Your task to perform on an android device: turn on airplane mode Image 0: 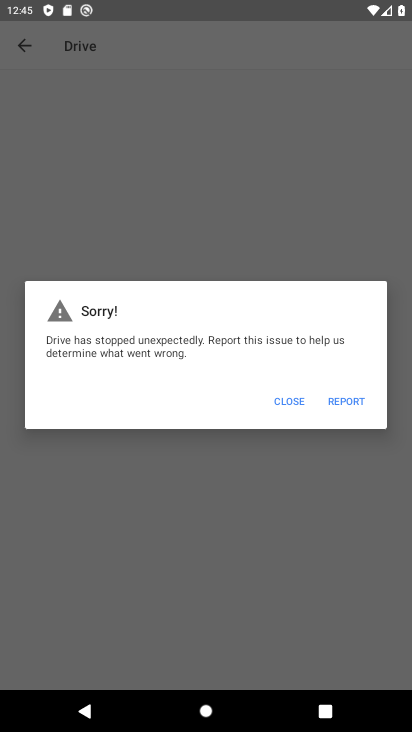
Step 0: press home button
Your task to perform on an android device: turn on airplane mode Image 1: 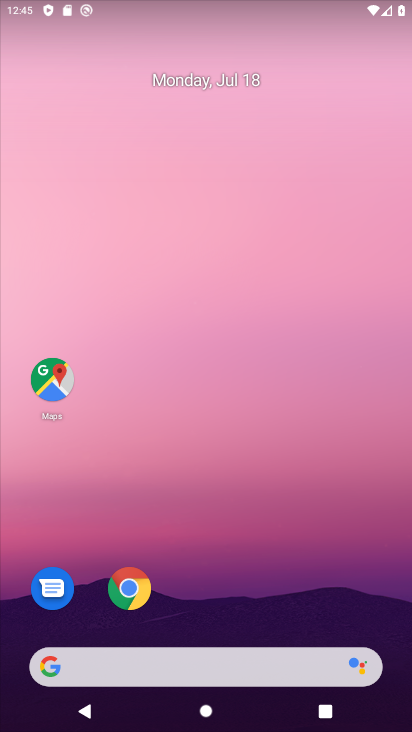
Step 1: drag from (201, 655) to (199, 138)
Your task to perform on an android device: turn on airplane mode Image 2: 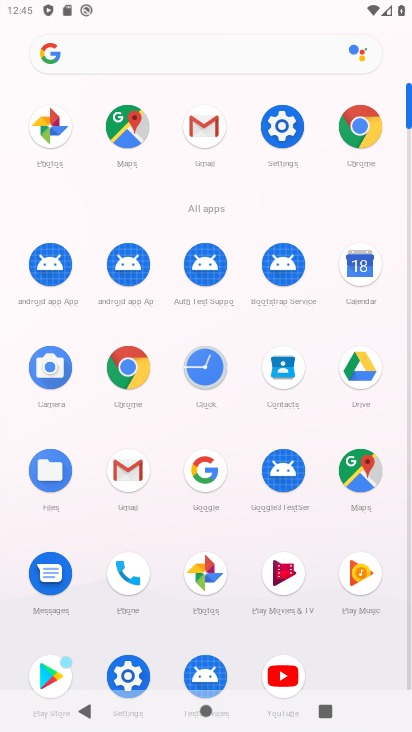
Step 2: click (273, 139)
Your task to perform on an android device: turn on airplane mode Image 3: 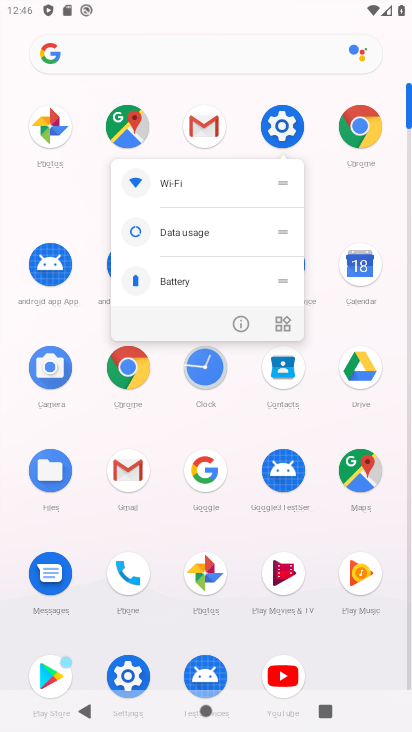
Step 3: click (287, 126)
Your task to perform on an android device: turn on airplane mode Image 4: 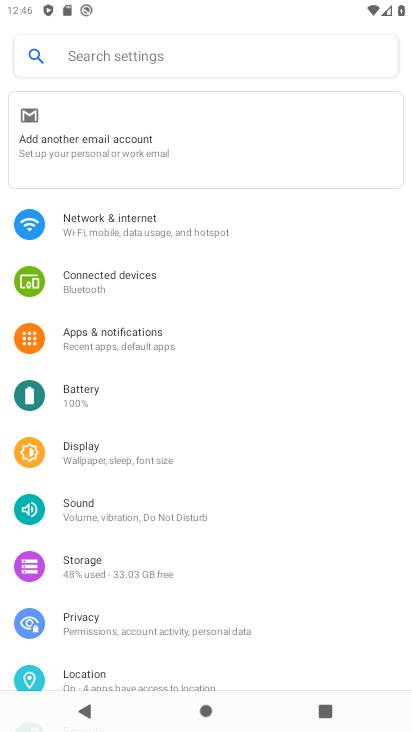
Step 4: click (124, 226)
Your task to perform on an android device: turn on airplane mode Image 5: 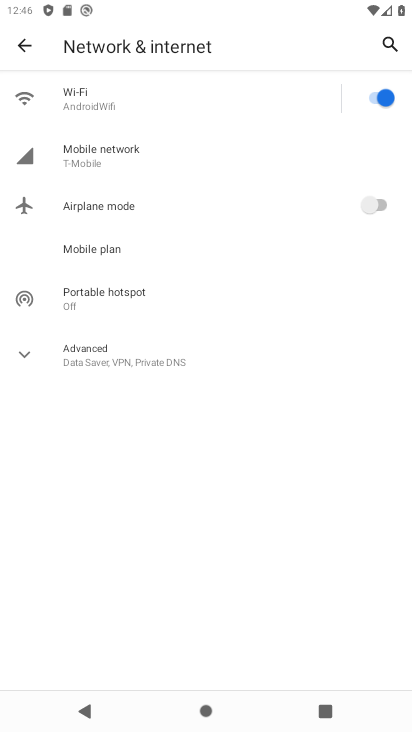
Step 5: click (376, 207)
Your task to perform on an android device: turn on airplane mode Image 6: 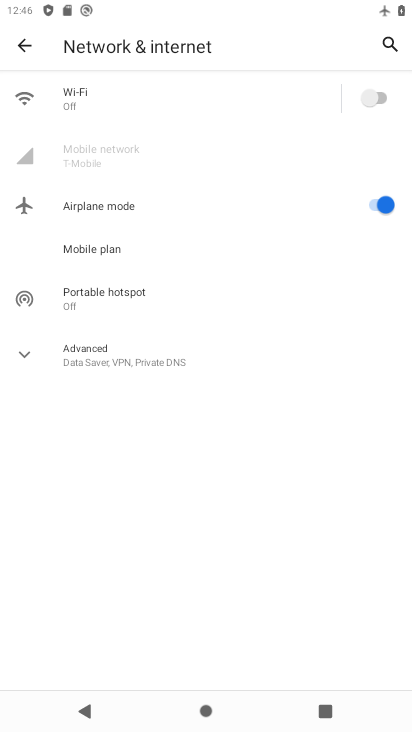
Step 6: task complete